Your task to perform on an android device: When is my next appointment? Image 0: 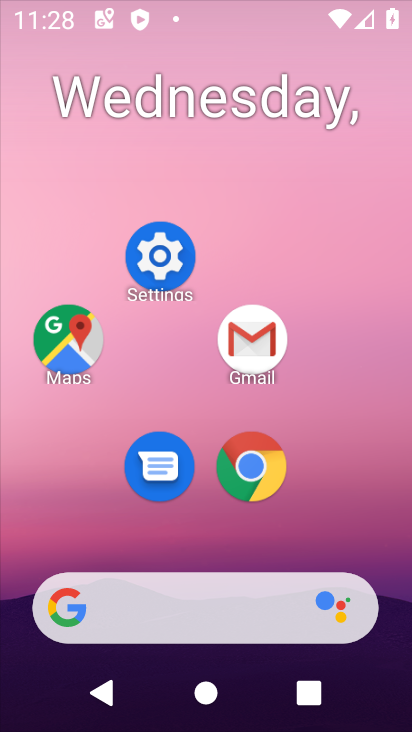
Step 0: drag from (205, 590) to (240, 240)
Your task to perform on an android device: When is my next appointment? Image 1: 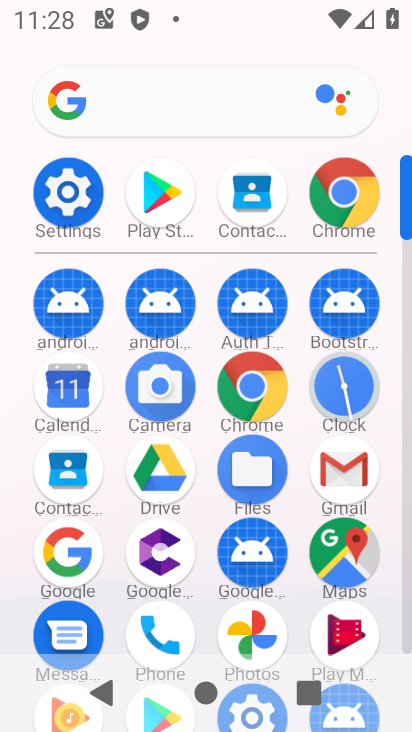
Step 1: click (59, 390)
Your task to perform on an android device: When is my next appointment? Image 2: 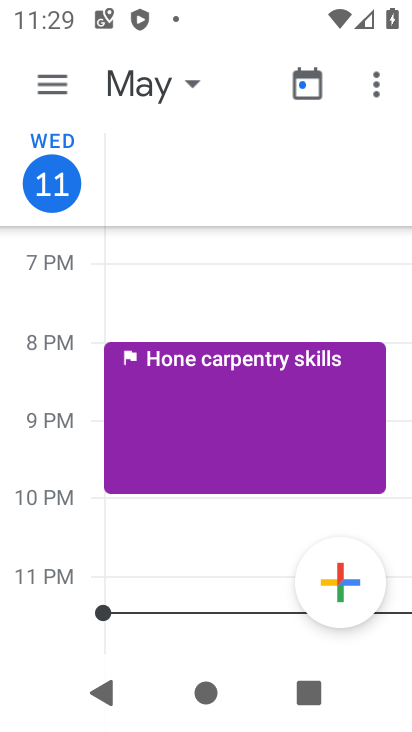
Step 2: drag from (280, 629) to (316, 294)
Your task to perform on an android device: When is my next appointment? Image 3: 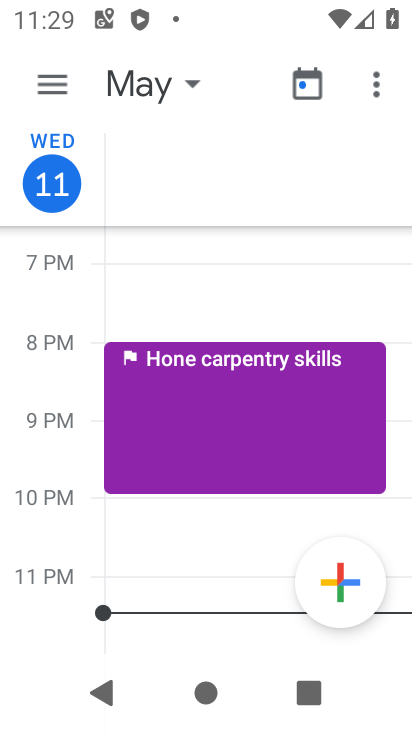
Step 3: drag from (273, 595) to (241, 288)
Your task to perform on an android device: When is my next appointment? Image 4: 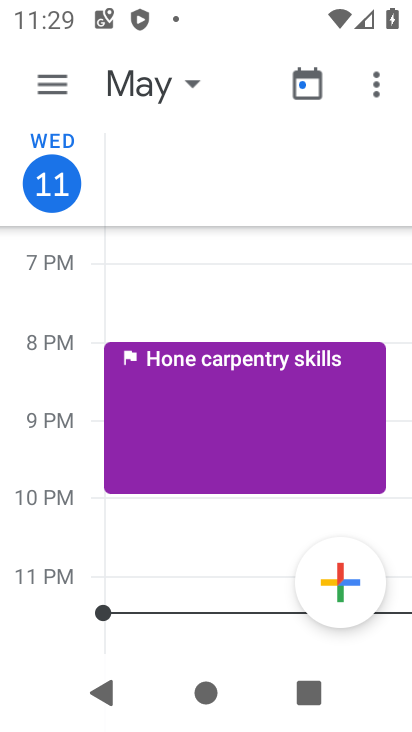
Step 4: click (181, 89)
Your task to perform on an android device: When is my next appointment? Image 5: 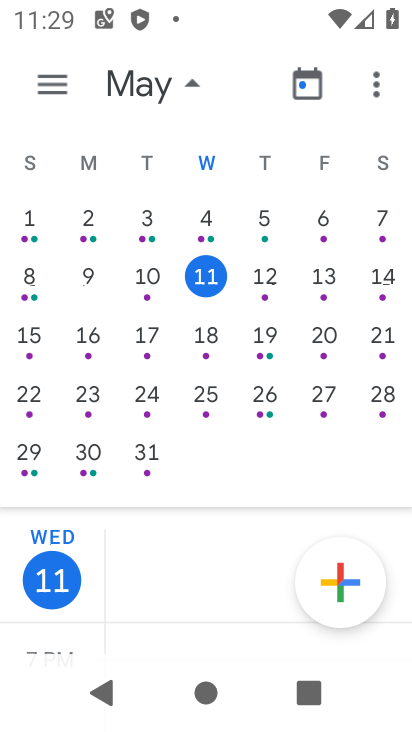
Step 5: click (214, 287)
Your task to perform on an android device: When is my next appointment? Image 6: 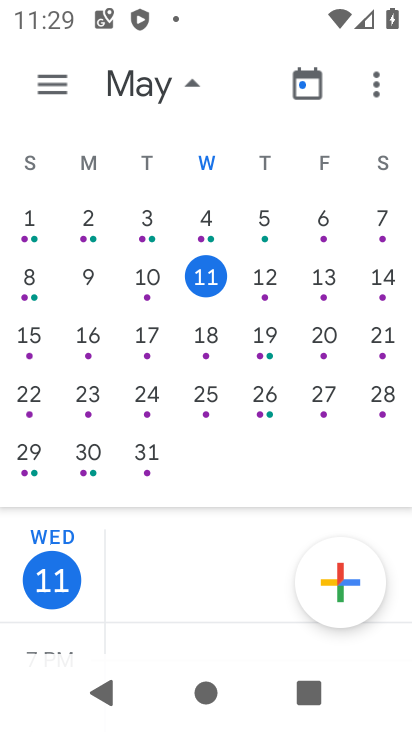
Step 6: task complete